Your task to perform on an android device: open wifi settings Image 0: 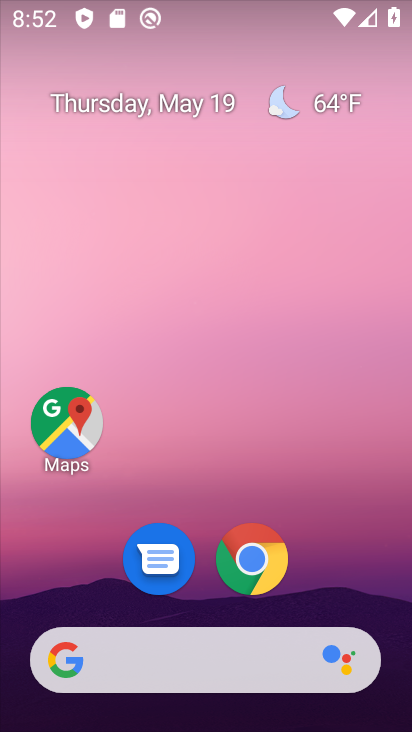
Step 0: drag from (220, 721) to (202, 157)
Your task to perform on an android device: open wifi settings Image 1: 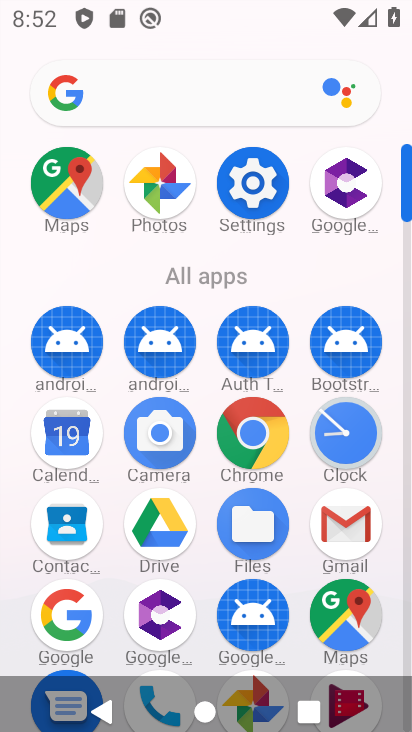
Step 1: click (253, 185)
Your task to perform on an android device: open wifi settings Image 2: 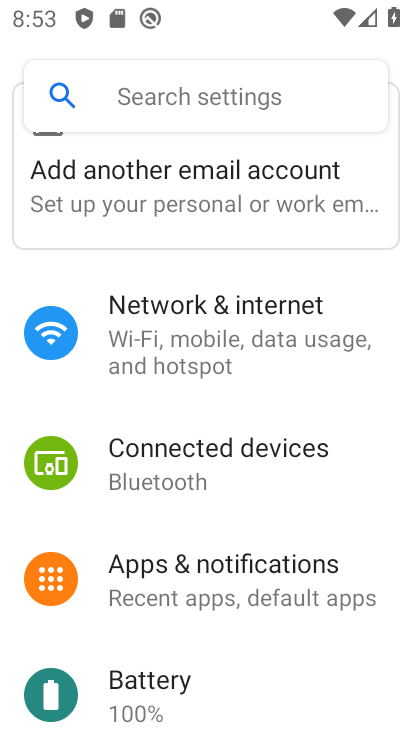
Step 2: click (162, 318)
Your task to perform on an android device: open wifi settings Image 3: 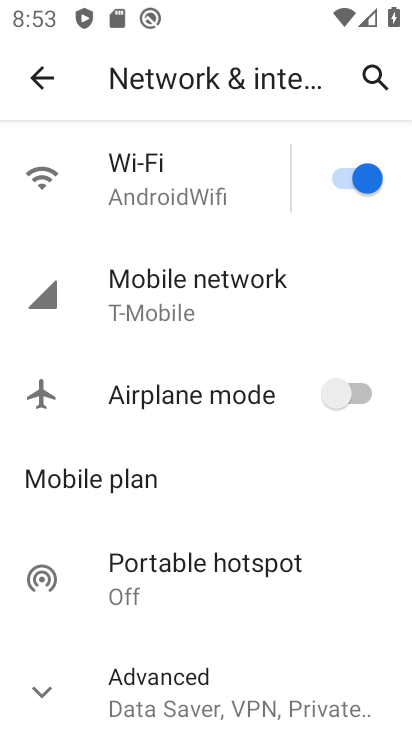
Step 3: click (141, 192)
Your task to perform on an android device: open wifi settings Image 4: 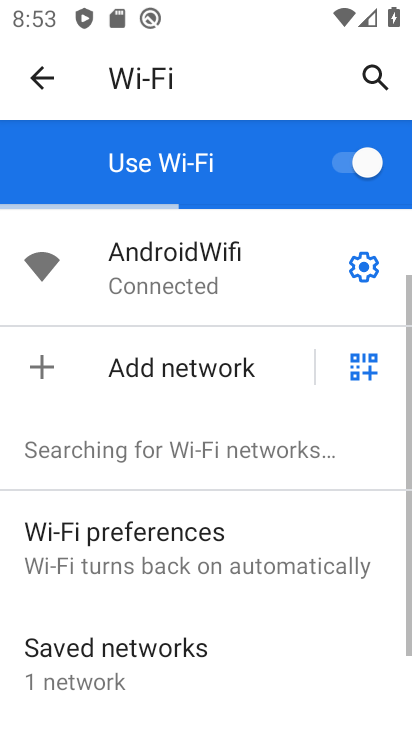
Step 4: task complete